Your task to perform on an android device: toggle location history Image 0: 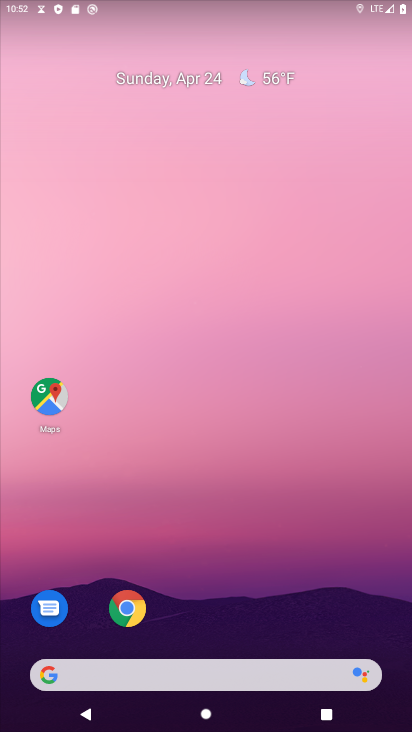
Step 0: drag from (218, 645) to (188, 58)
Your task to perform on an android device: toggle location history Image 1: 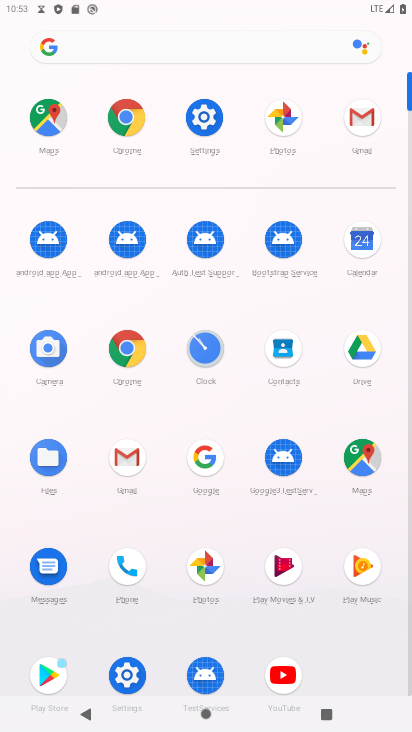
Step 1: click (130, 672)
Your task to perform on an android device: toggle location history Image 2: 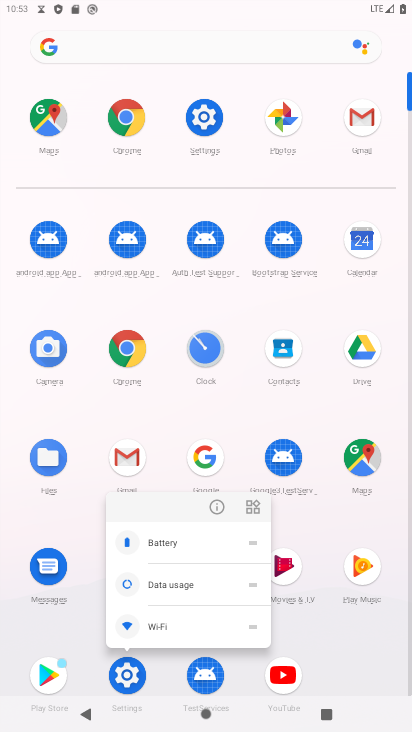
Step 2: click (133, 659)
Your task to perform on an android device: toggle location history Image 3: 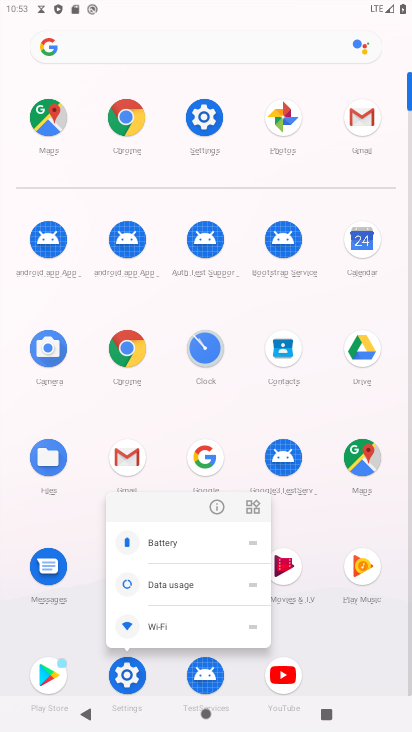
Step 3: click (115, 677)
Your task to perform on an android device: toggle location history Image 4: 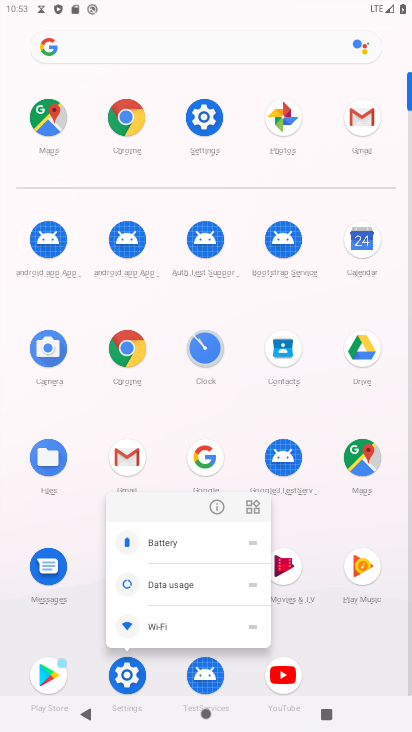
Step 4: click (353, 640)
Your task to perform on an android device: toggle location history Image 5: 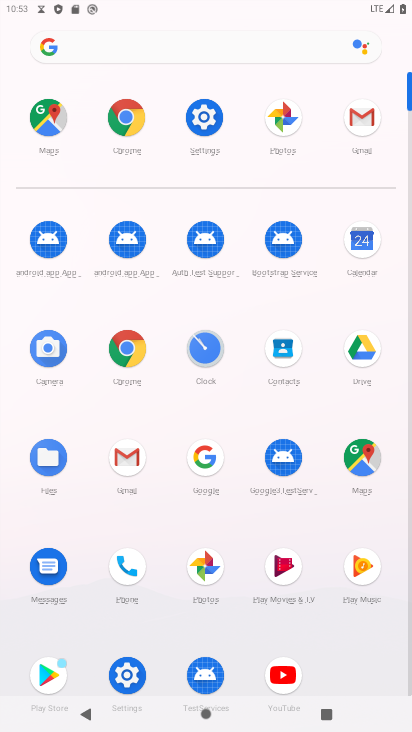
Step 5: click (368, 446)
Your task to perform on an android device: toggle location history Image 6: 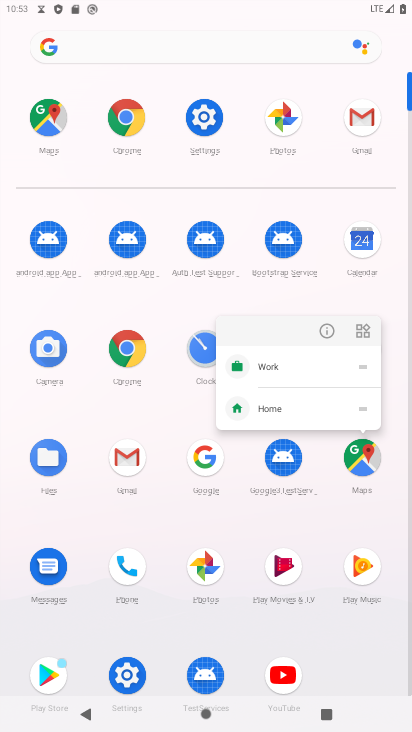
Step 6: click (363, 453)
Your task to perform on an android device: toggle location history Image 7: 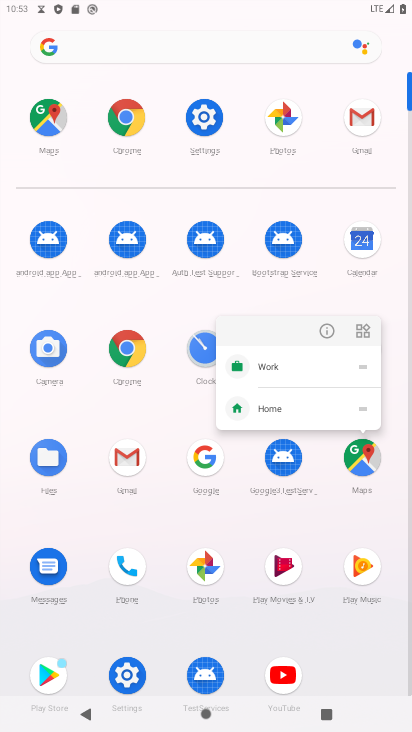
Step 7: click (363, 469)
Your task to perform on an android device: toggle location history Image 8: 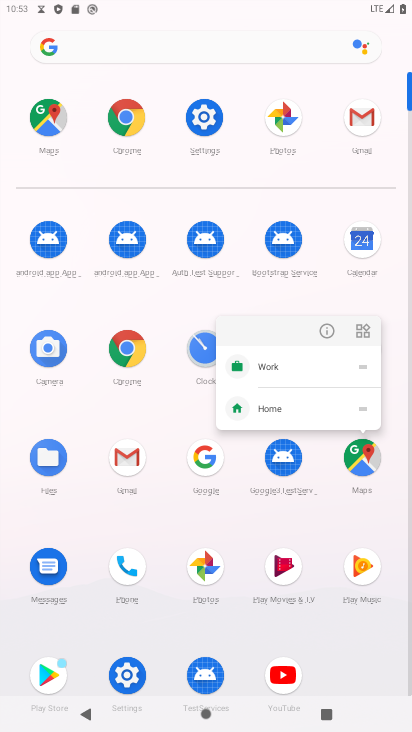
Step 8: click (363, 470)
Your task to perform on an android device: toggle location history Image 9: 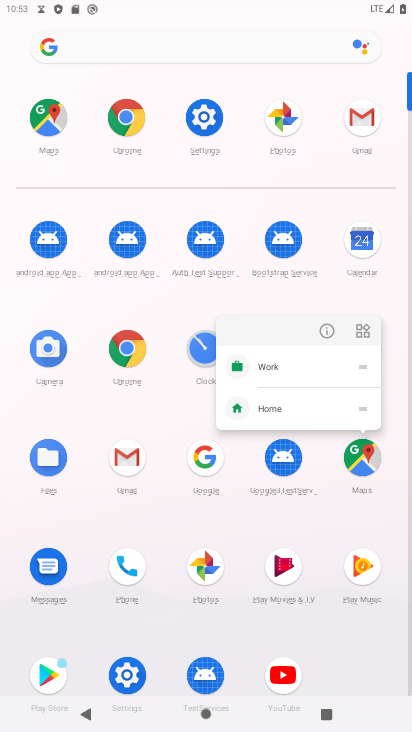
Step 9: click (363, 475)
Your task to perform on an android device: toggle location history Image 10: 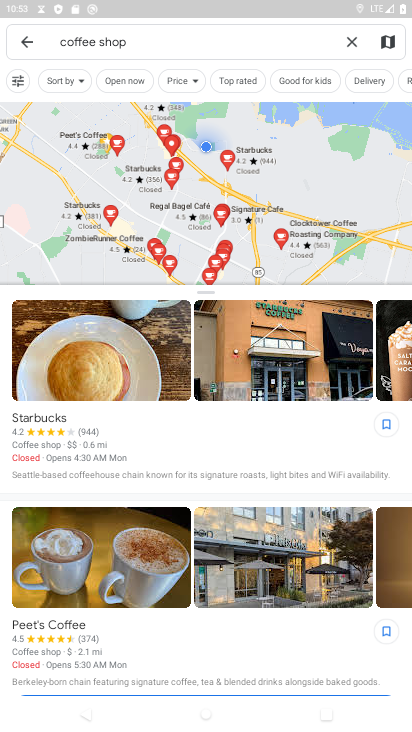
Step 10: click (15, 35)
Your task to perform on an android device: toggle location history Image 11: 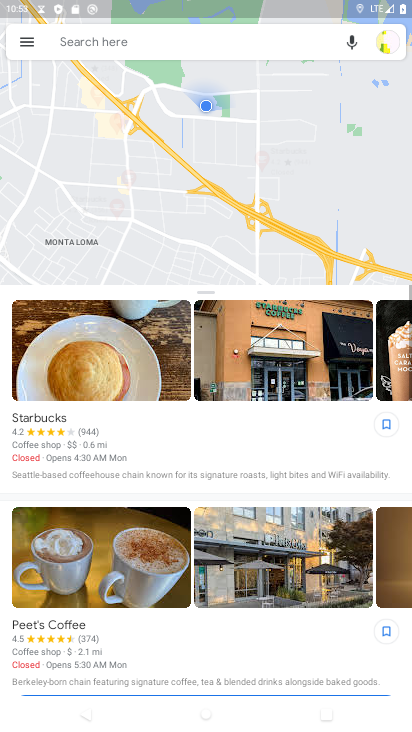
Step 11: click (22, 36)
Your task to perform on an android device: toggle location history Image 12: 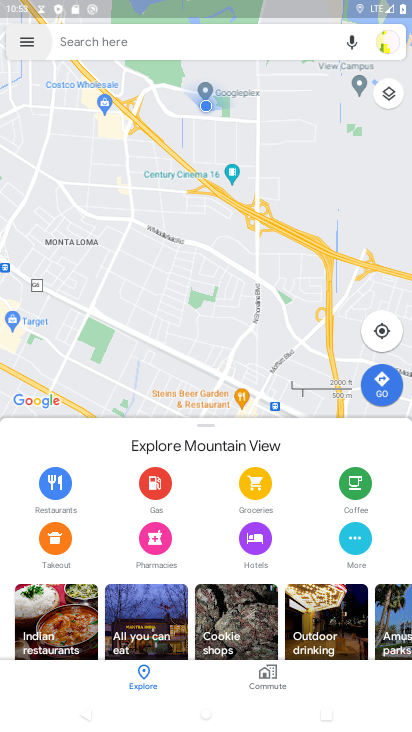
Step 12: click (33, 43)
Your task to perform on an android device: toggle location history Image 13: 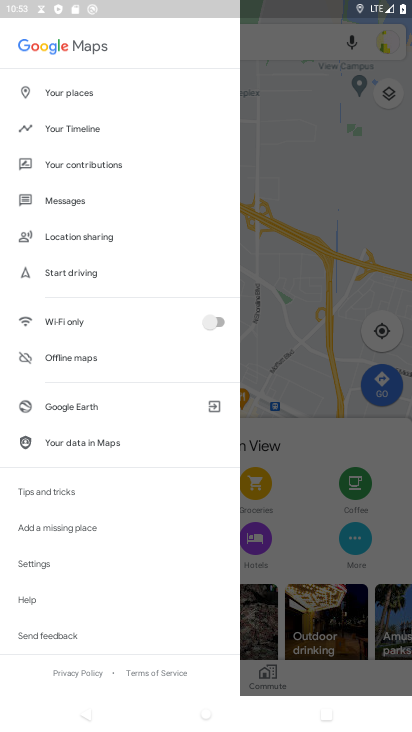
Step 13: click (73, 116)
Your task to perform on an android device: toggle location history Image 14: 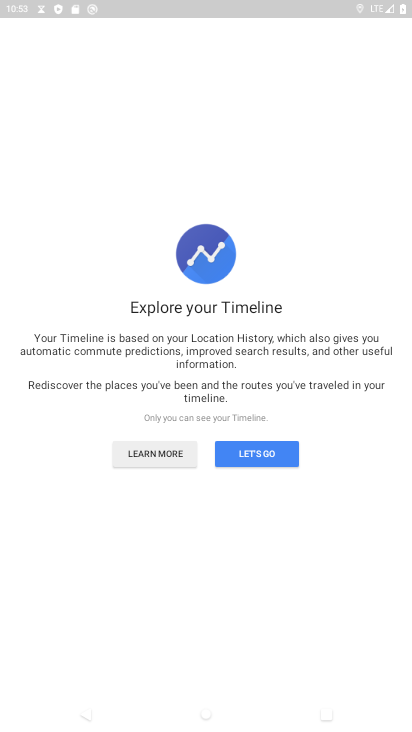
Step 14: click (251, 456)
Your task to perform on an android device: toggle location history Image 15: 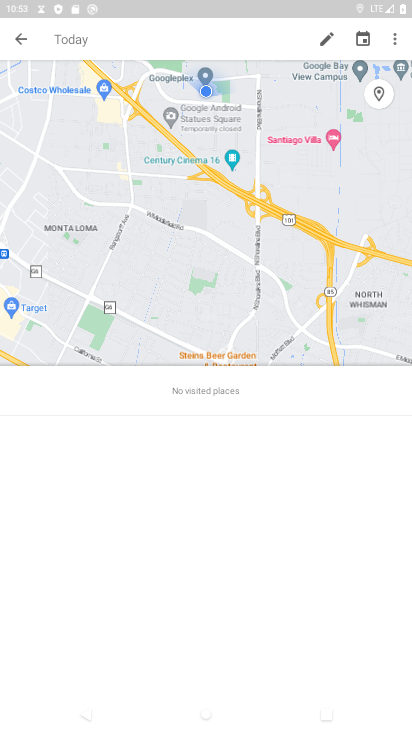
Step 15: click (393, 44)
Your task to perform on an android device: toggle location history Image 16: 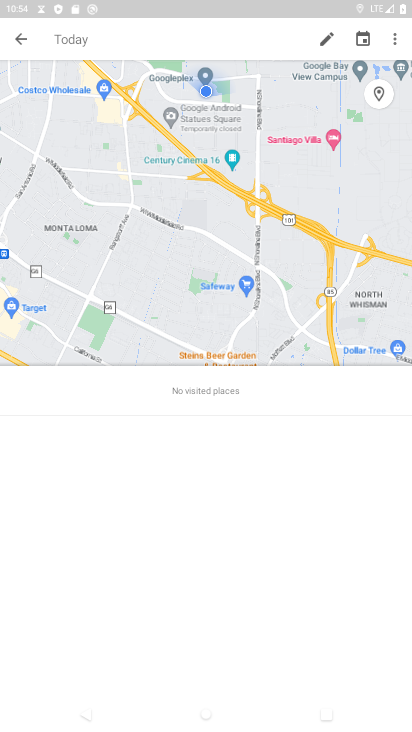
Step 16: click (395, 31)
Your task to perform on an android device: toggle location history Image 17: 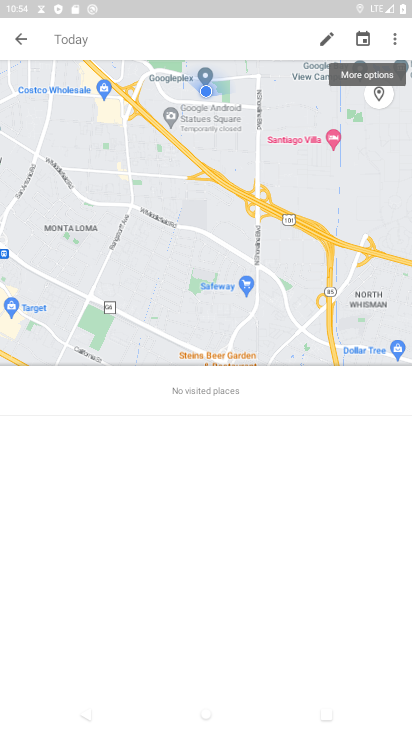
Step 17: click (392, 48)
Your task to perform on an android device: toggle location history Image 18: 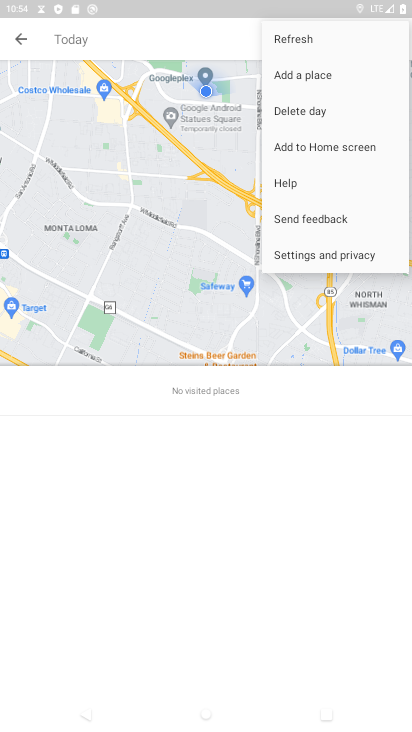
Step 18: click (301, 265)
Your task to perform on an android device: toggle location history Image 19: 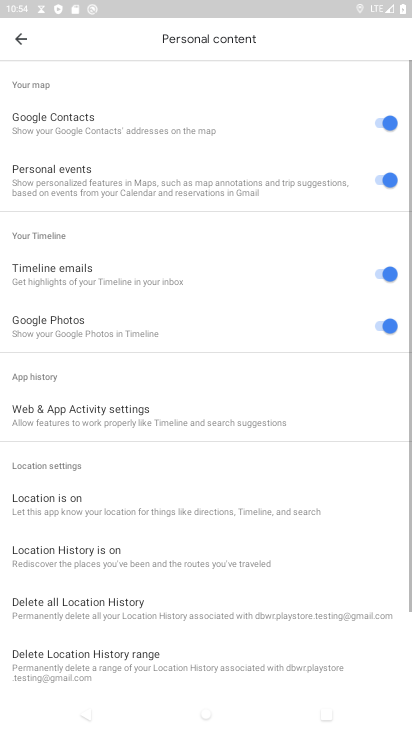
Step 19: drag from (212, 543) to (211, 281)
Your task to perform on an android device: toggle location history Image 20: 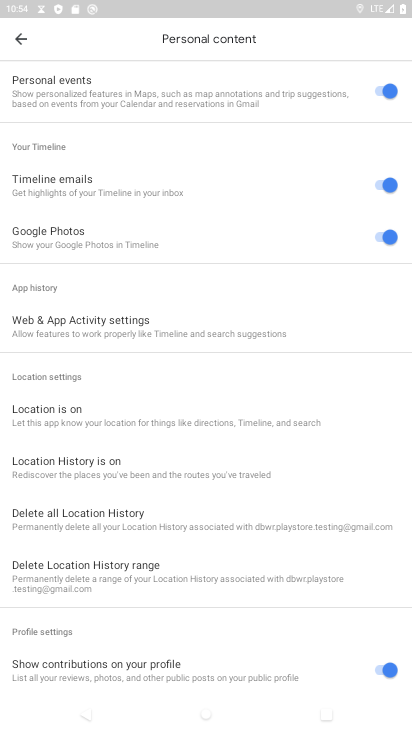
Step 20: click (127, 504)
Your task to perform on an android device: toggle location history Image 21: 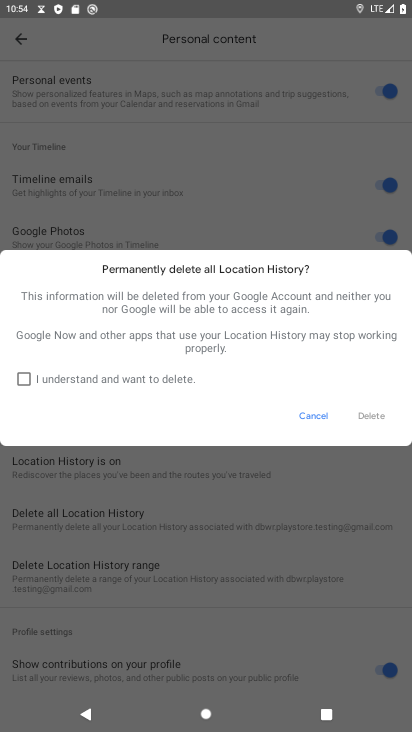
Step 21: click (29, 372)
Your task to perform on an android device: toggle location history Image 22: 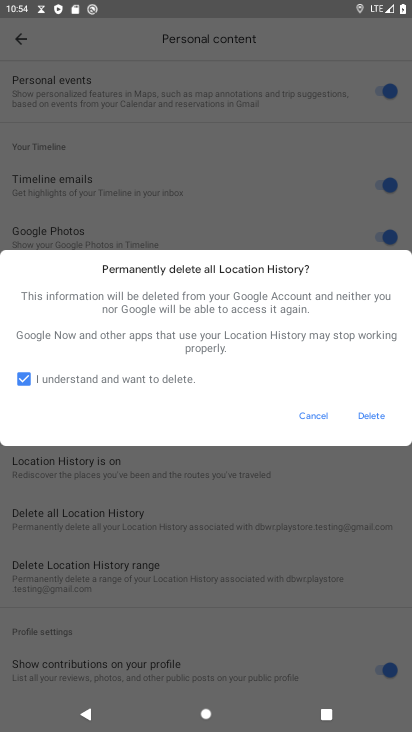
Step 22: click (376, 413)
Your task to perform on an android device: toggle location history Image 23: 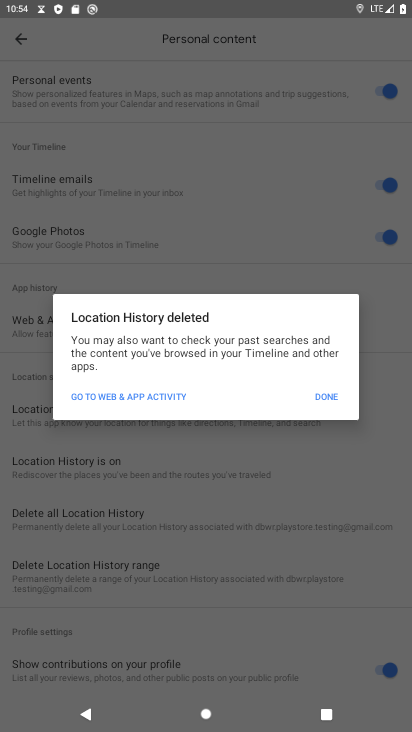
Step 23: click (319, 389)
Your task to perform on an android device: toggle location history Image 24: 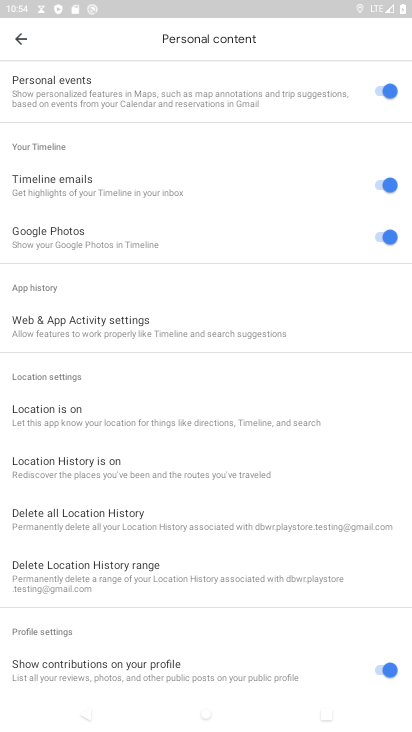
Step 24: task complete